Your task to perform on an android device: toggle sleep mode Image 0: 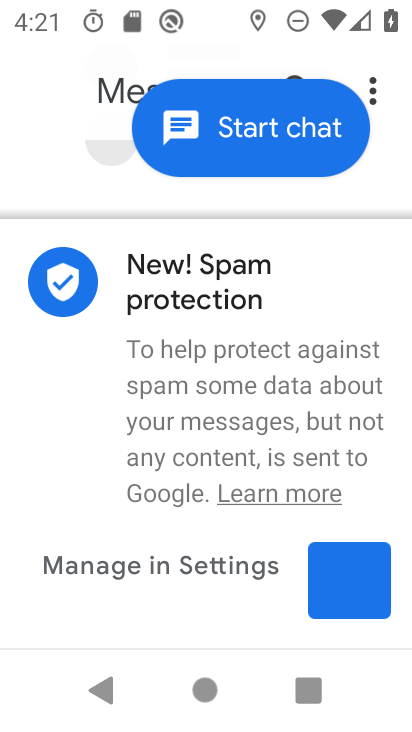
Step 0: press home button
Your task to perform on an android device: toggle sleep mode Image 1: 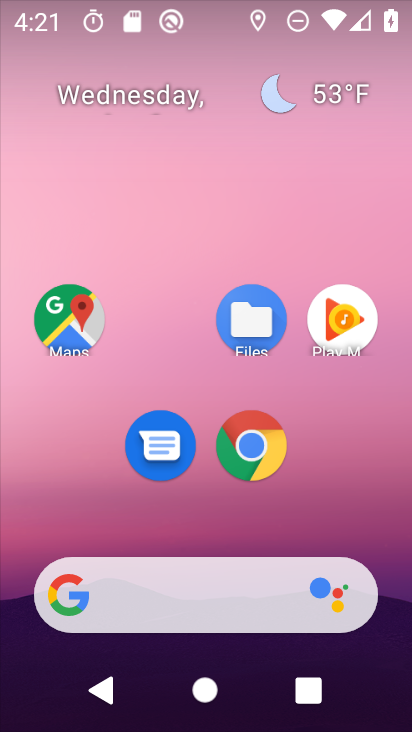
Step 1: drag from (294, 528) to (319, 313)
Your task to perform on an android device: toggle sleep mode Image 2: 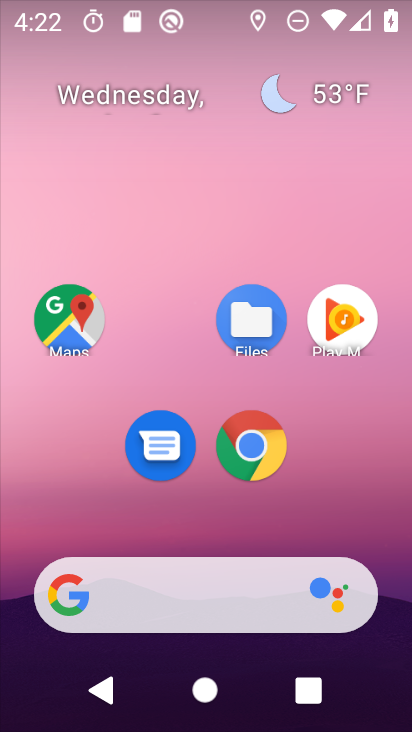
Step 2: drag from (352, 528) to (271, 297)
Your task to perform on an android device: toggle sleep mode Image 3: 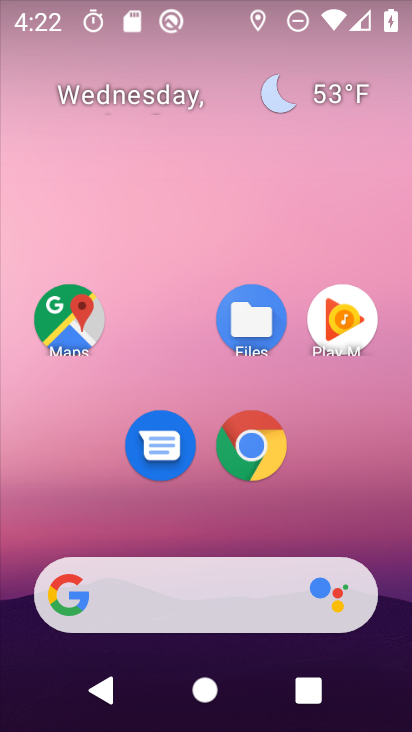
Step 3: drag from (304, 504) to (295, 142)
Your task to perform on an android device: toggle sleep mode Image 4: 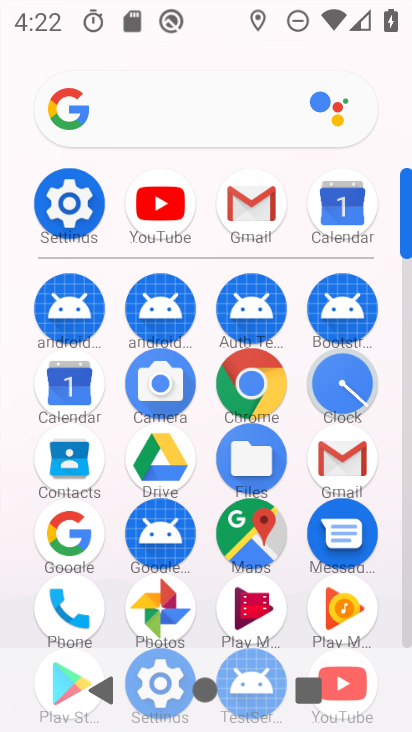
Step 4: click (50, 203)
Your task to perform on an android device: toggle sleep mode Image 5: 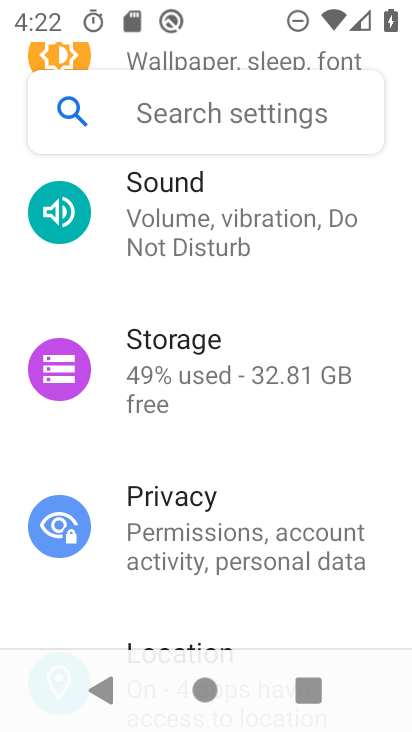
Step 5: drag from (260, 240) to (319, 507)
Your task to perform on an android device: toggle sleep mode Image 6: 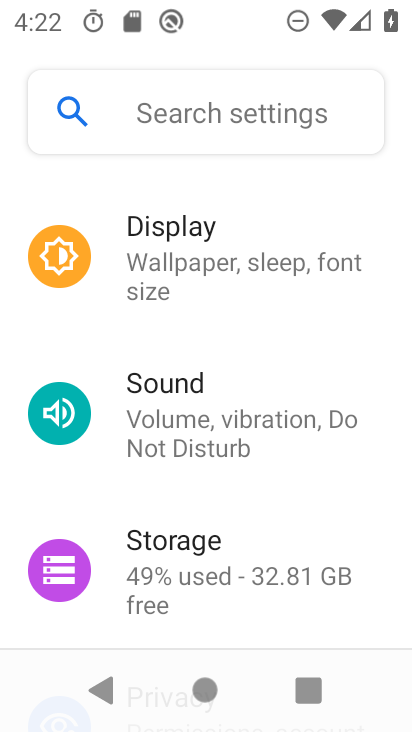
Step 6: drag from (358, 536) to (313, 205)
Your task to perform on an android device: toggle sleep mode Image 7: 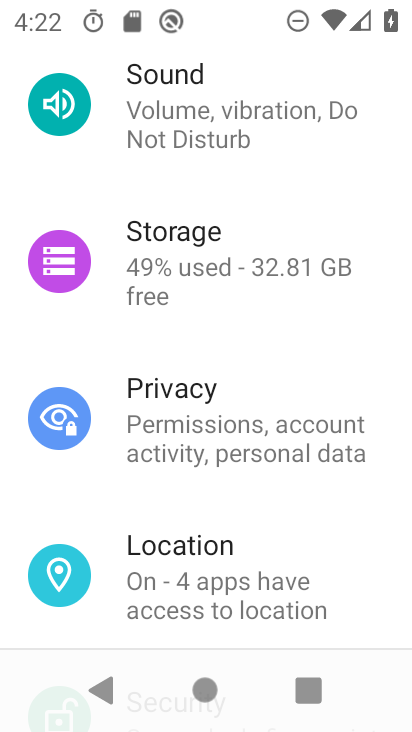
Step 7: drag from (291, 504) to (297, 198)
Your task to perform on an android device: toggle sleep mode Image 8: 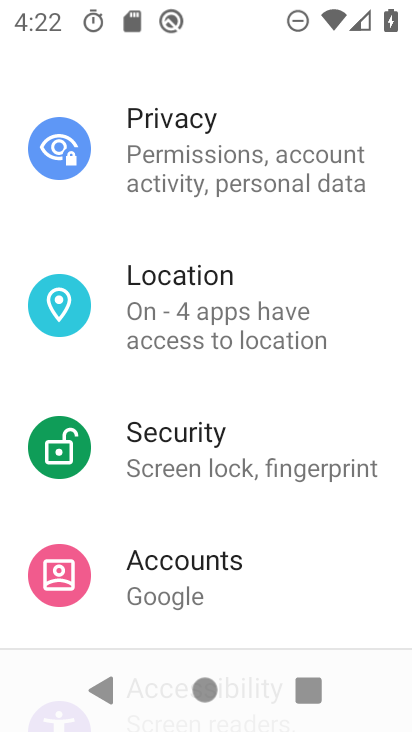
Step 8: drag from (265, 523) to (248, 220)
Your task to perform on an android device: toggle sleep mode Image 9: 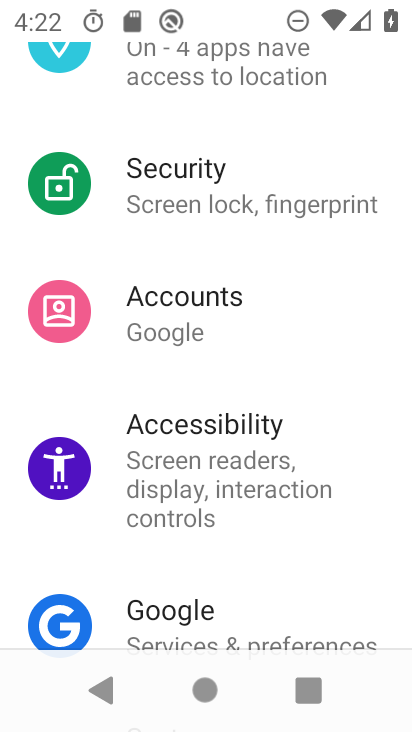
Step 9: drag from (248, 192) to (263, 507)
Your task to perform on an android device: toggle sleep mode Image 10: 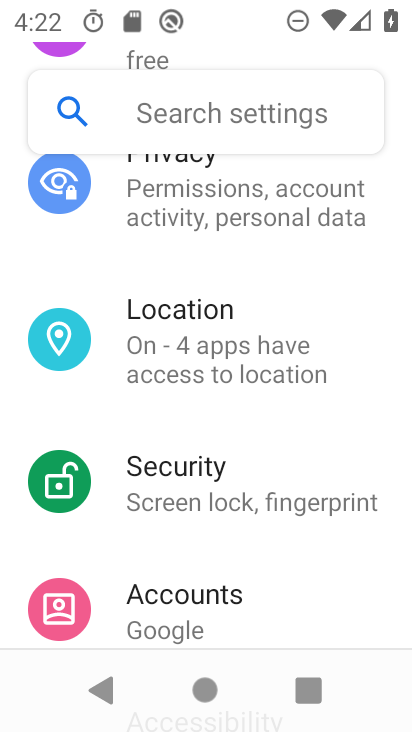
Step 10: drag from (189, 200) to (202, 526)
Your task to perform on an android device: toggle sleep mode Image 11: 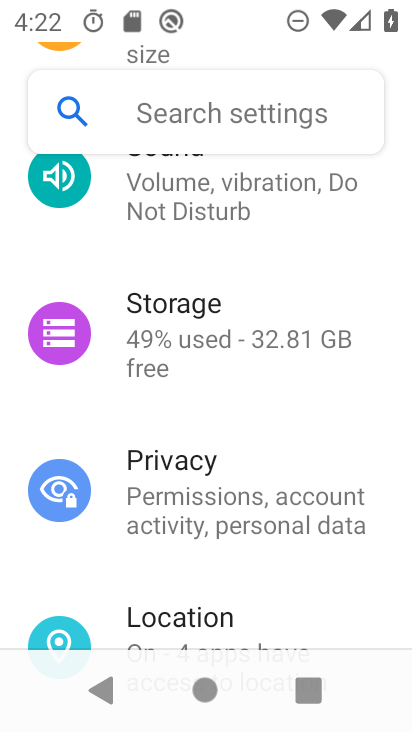
Step 11: drag from (204, 241) to (228, 508)
Your task to perform on an android device: toggle sleep mode Image 12: 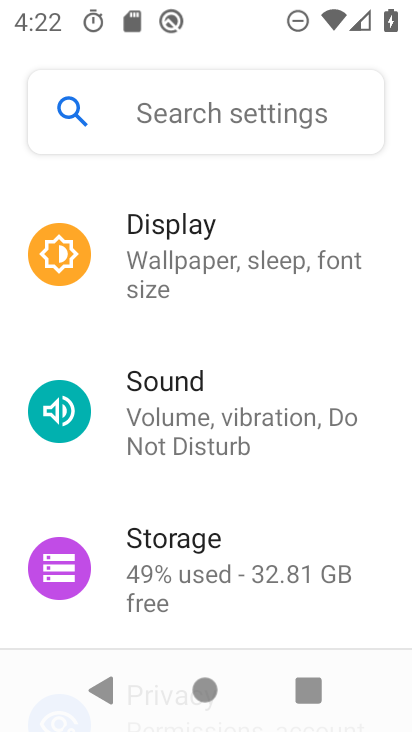
Step 12: click (202, 286)
Your task to perform on an android device: toggle sleep mode Image 13: 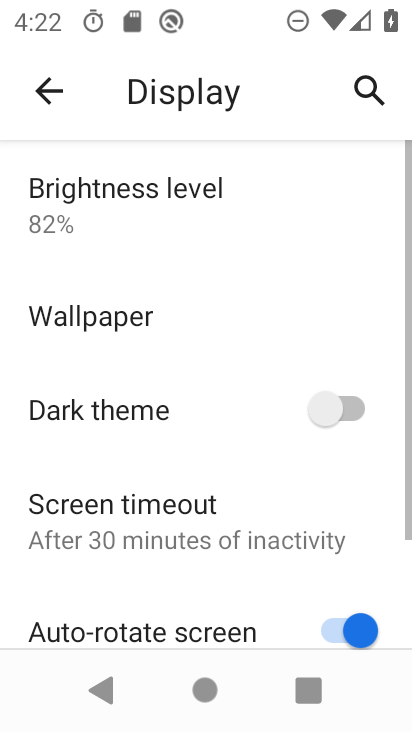
Step 13: drag from (191, 574) to (197, 301)
Your task to perform on an android device: toggle sleep mode Image 14: 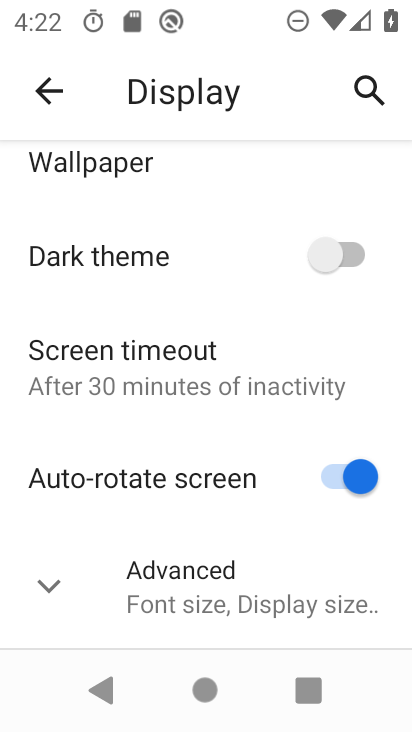
Step 14: click (184, 571)
Your task to perform on an android device: toggle sleep mode Image 15: 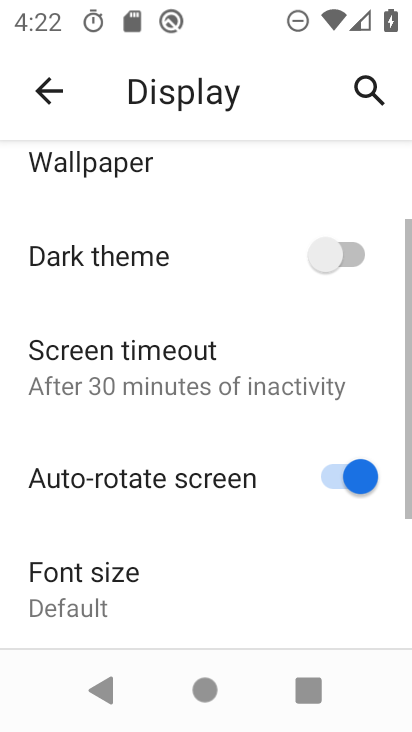
Step 15: task complete